Your task to perform on an android device: turn on data saver in the chrome app Image 0: 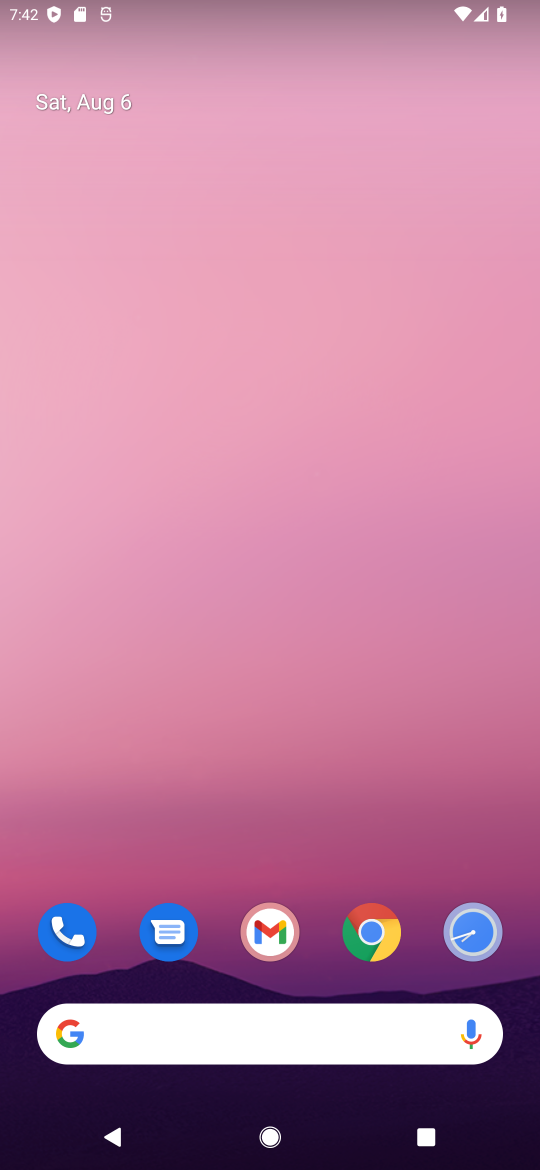
Step 0: press home button
Your task to perform on an android device: turn on data saver in the chrome app Image 1: 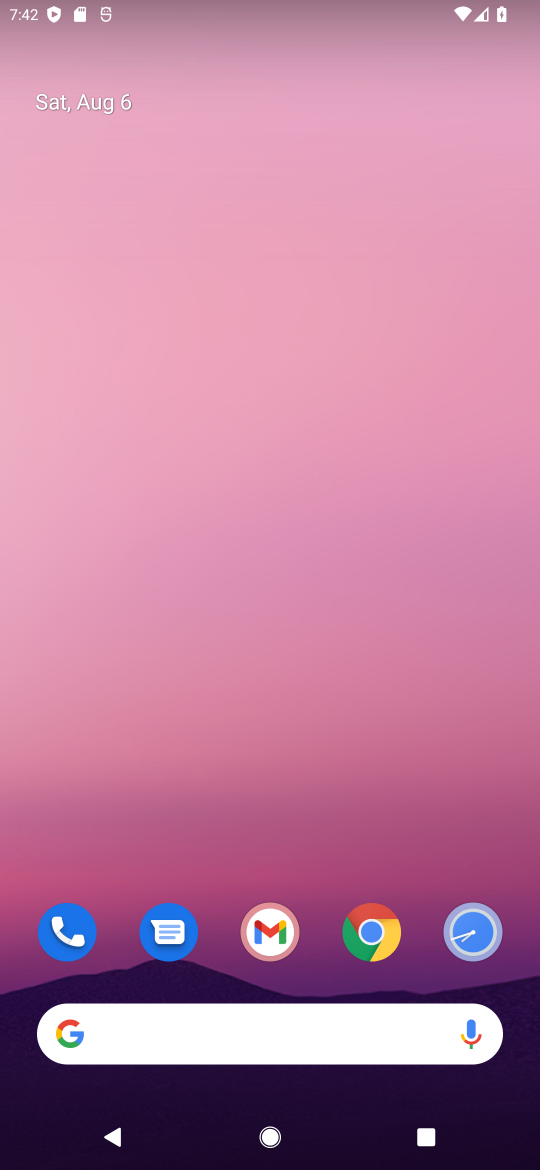
Step 1: click (374, 930)
Your task to perform on an android device: turn on data saver in the chrome app Image 2: 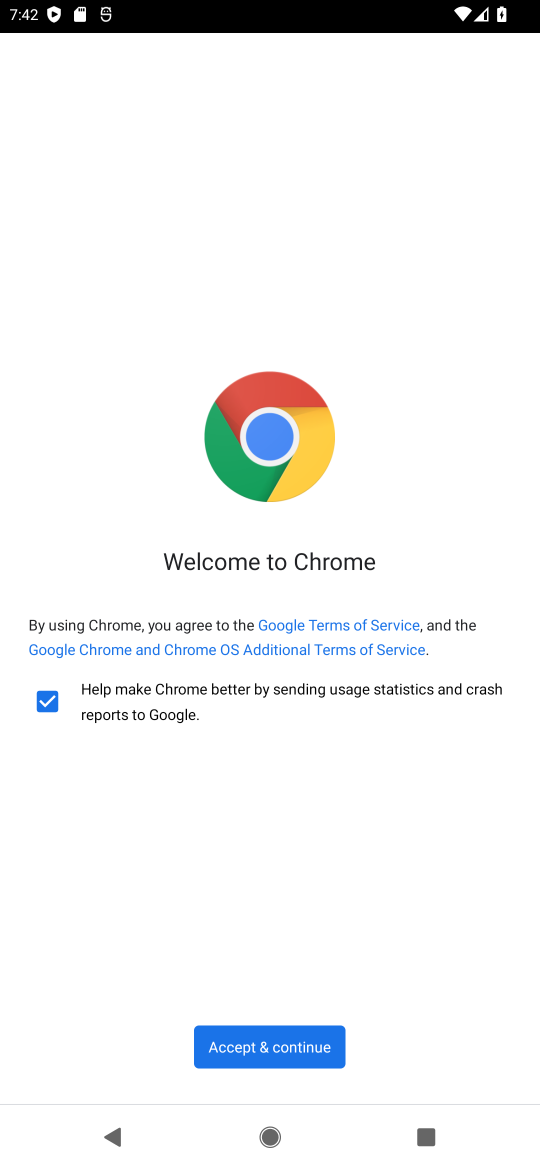
Step 2: click (253, 1053)
Your task to perform on an android device: turn on data saver in the chrome app Image 3: 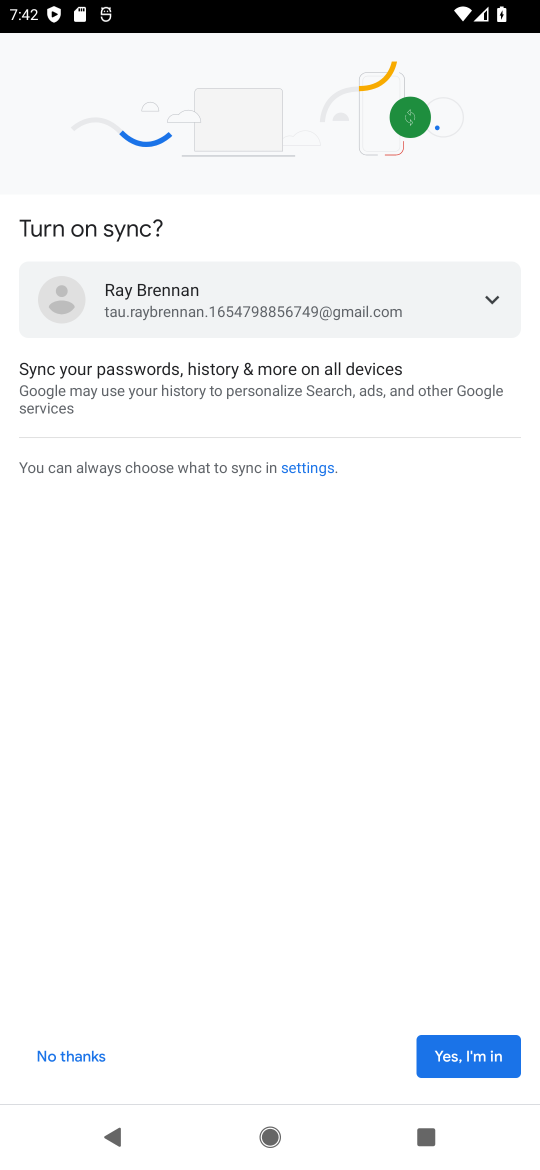
Step 3: click (488, 1060)
Your task to perform on an android device: turn on data saver in the chrome app Image 4: 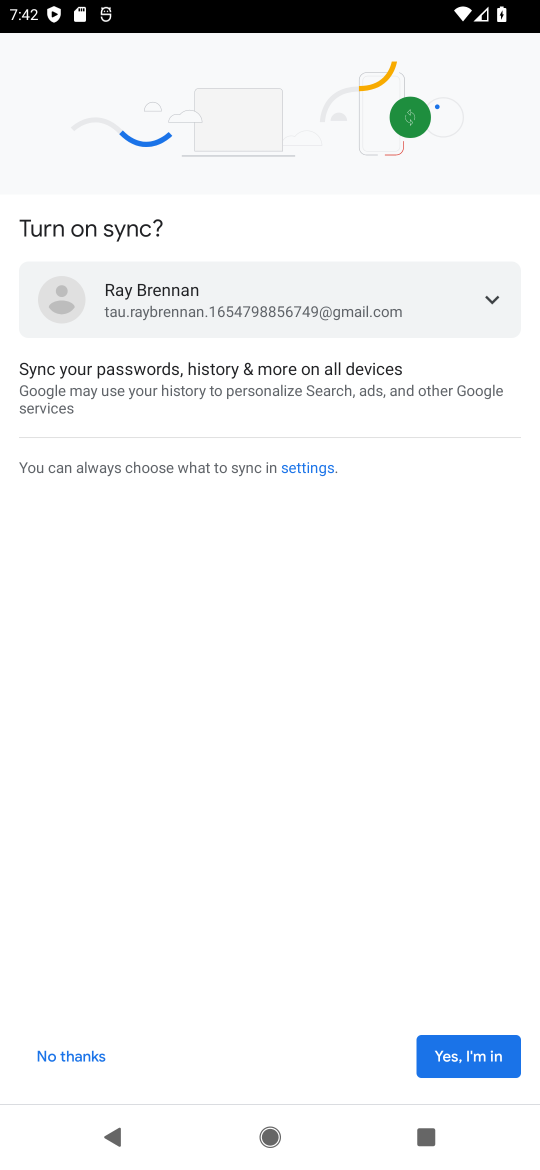
Step 4: click (488, 1061)
Your task to perform on an android device: turn on data saver in the chrome app Image 5: 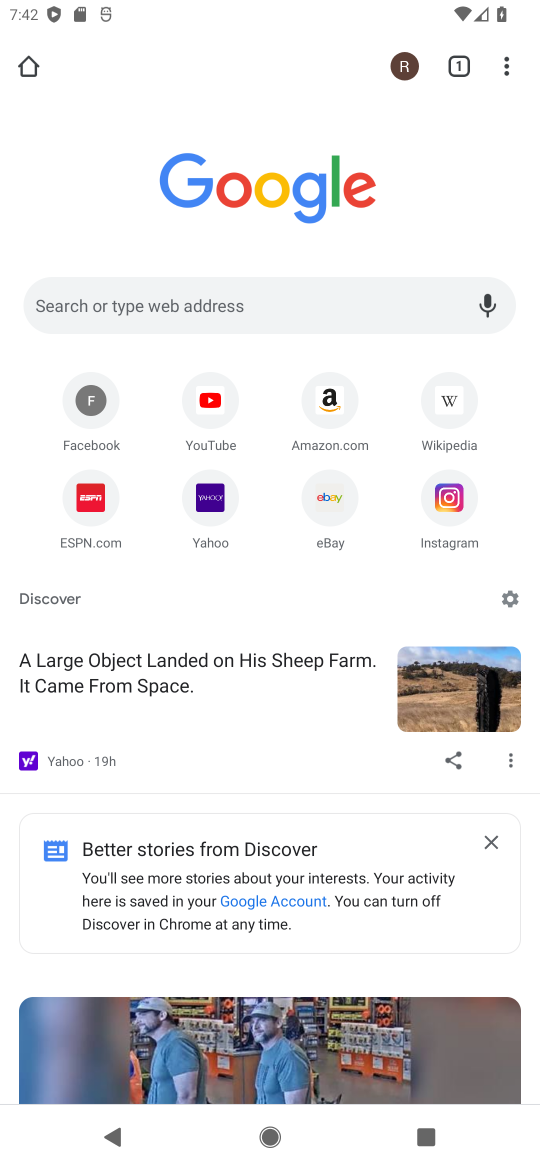
Step 5: drag from (504, 67) to (378, 567)
Your task to perform on an android device: turn on data saver in the chrome app Image 6: 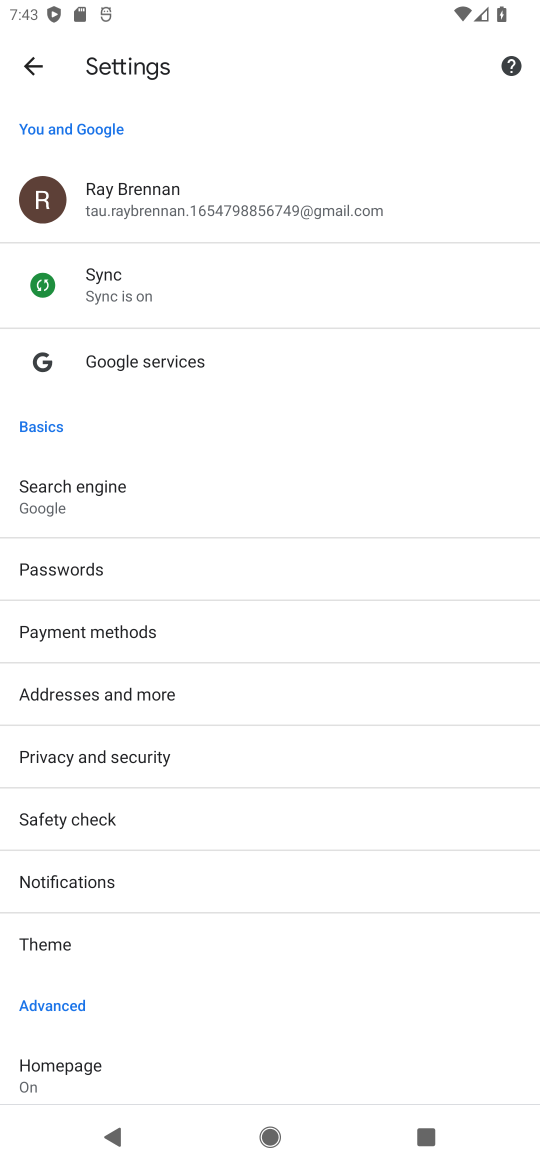
Step 6: drag from (228, 947) to (380, 267)
Your task to perform on an android device: turn on data saver in the chrome app Image 7: 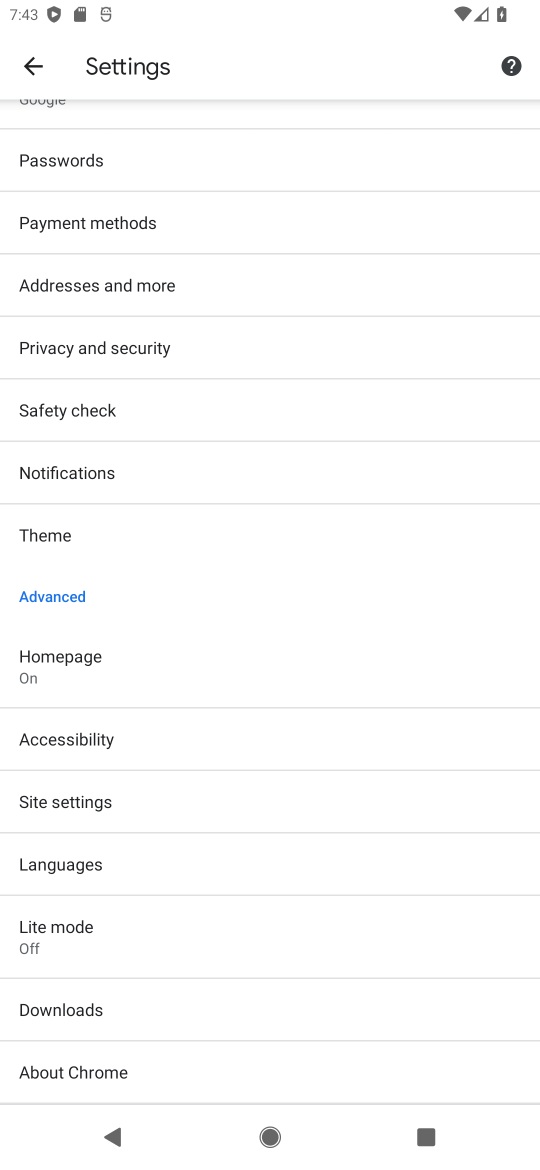
Step 7: click (98, 927)
Your task to perform on an android device: turn on data saver in the chrome app Image 8: 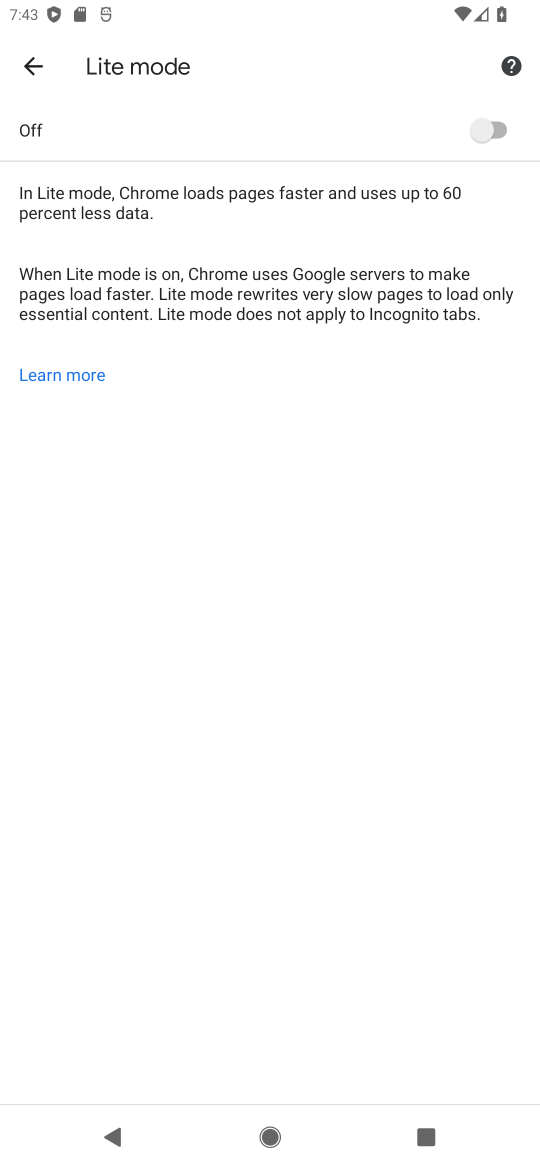
Step 8: click (494, 127)
Your task to perform on an android device: turn on data saver in the chrome app Image 9: 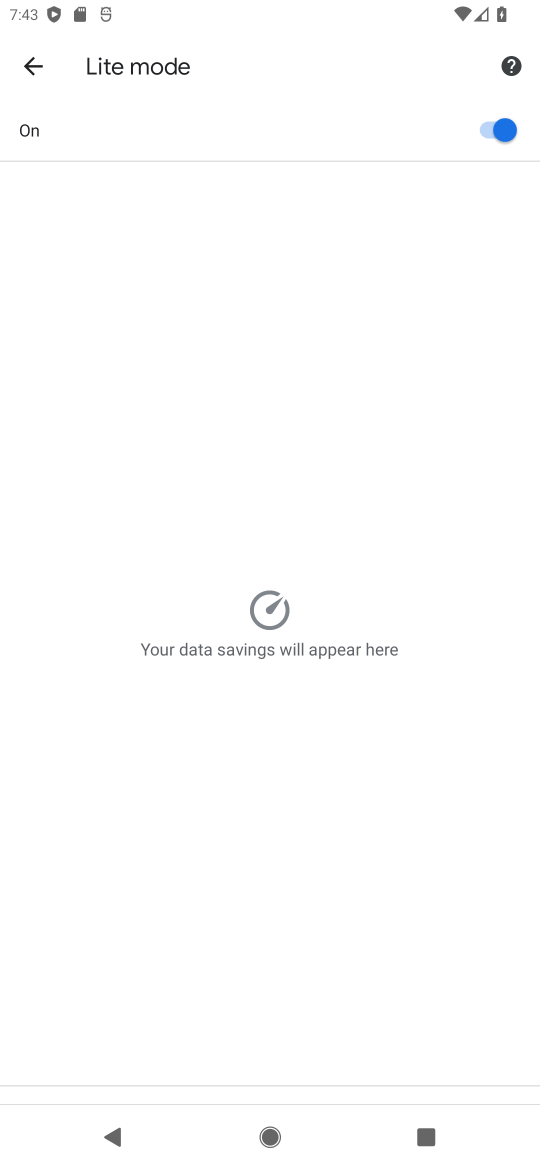
Step 9: task complete